Your task to perform on an android device: all mails in gmail Image 0: 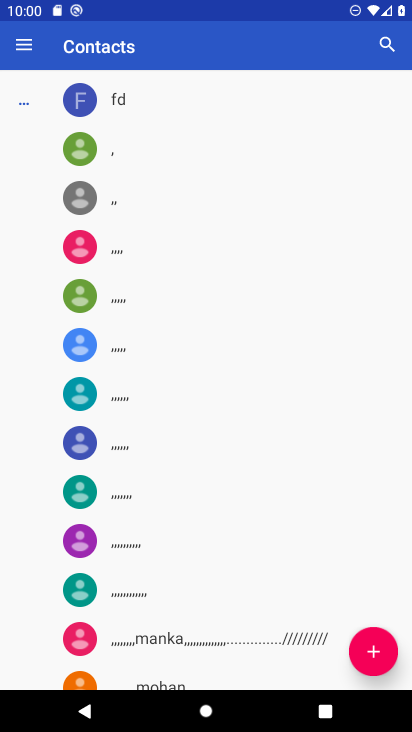
Step 0: press home button
Your task to perform on an android device: all mails in gmail Image 1: 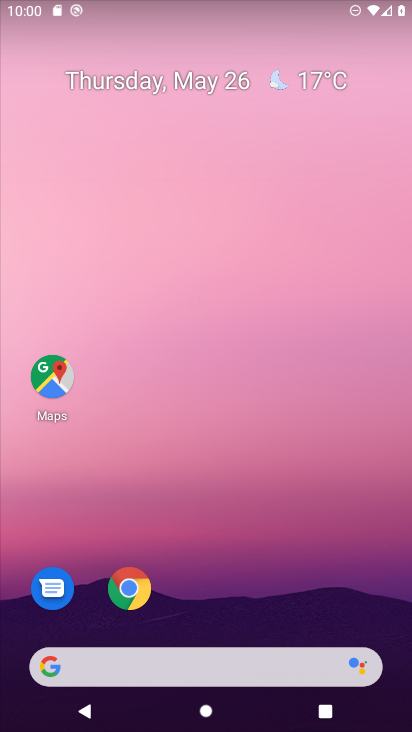
Step 1: drag from (379, 621) to (270, 84)
Your task to perform on an android device: all mails in gmail Image 2: 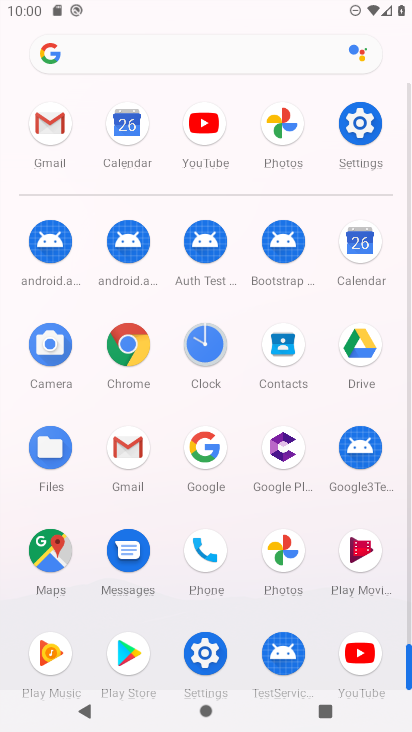
Step 2: click (128, 452)
Your task to perform on an android device: all mails in gmail Image 3: 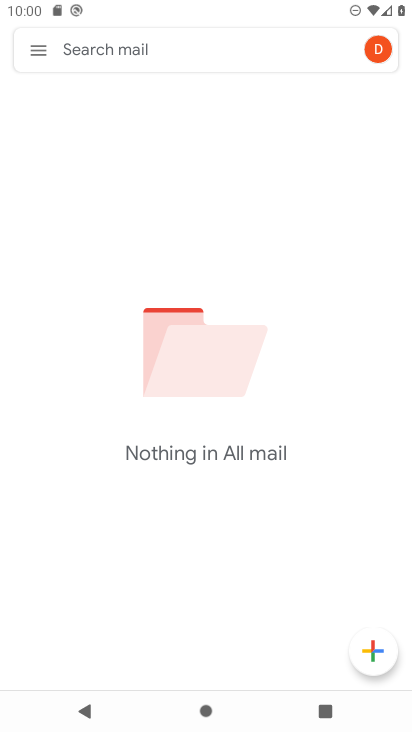
Step 3: click (30, 49)
Your task to perform on an android device: all mails in gmail Image 4: 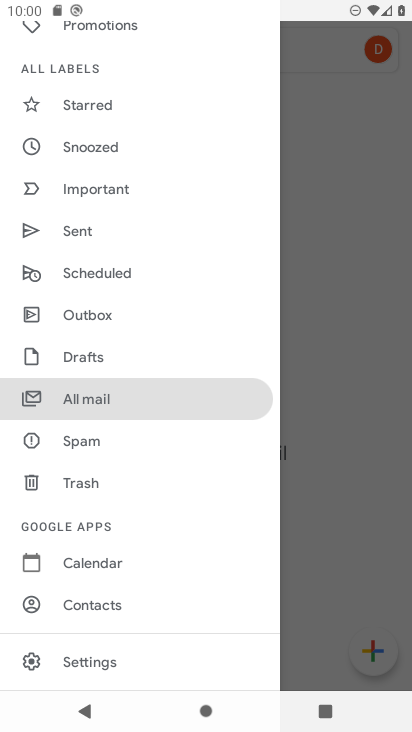
Step 4: click (97, 391)
Your task to perform on an android device: all mails in gmail Image 5: 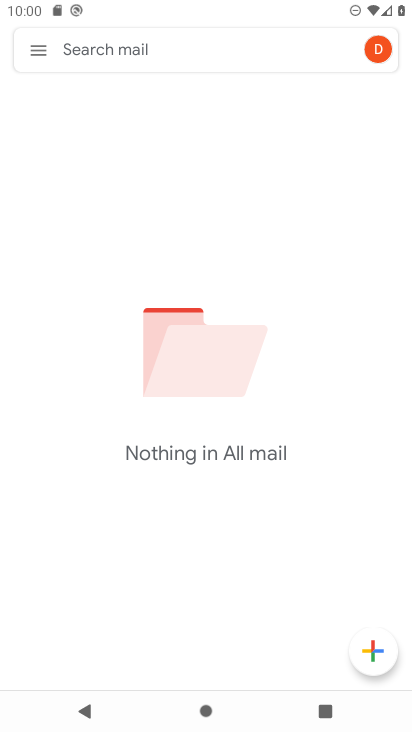
Step 5: task complete